Your task to perform on an android device: toggle show notifications on the lock screen Image 0: 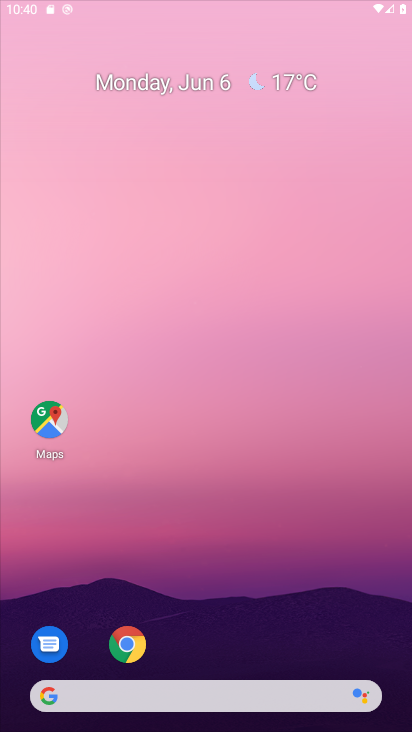
Step 0: click (129, 650)
Your task to perform on an android device: toggle show notifications on the lock screen Image 1: 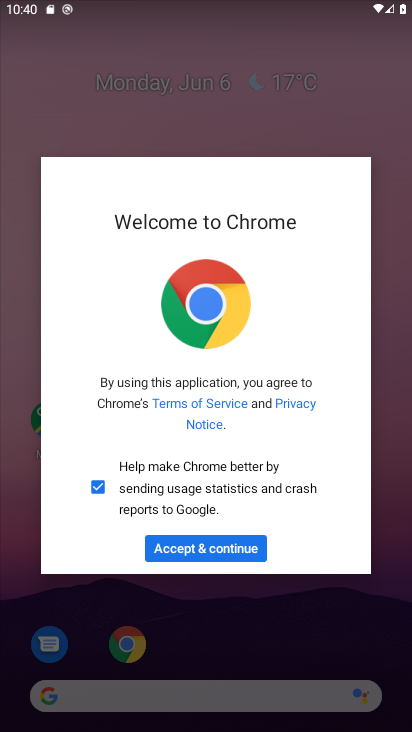
Step 1: click (221, 535)
Your task to perform on an android device: toggle show notifications on the lock screen Image 2: 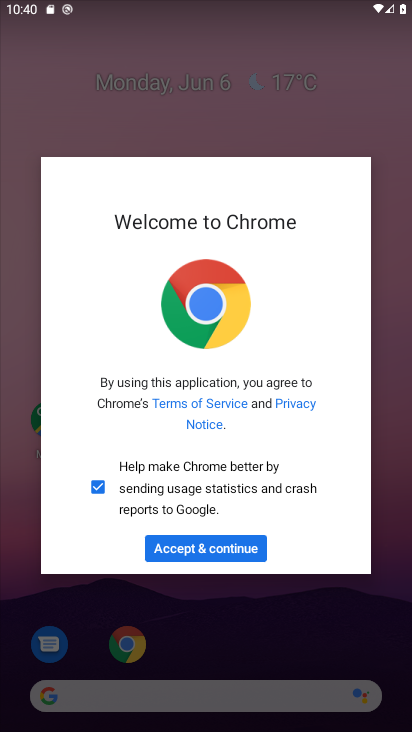
Step 2: press home button
Your task to perform on an android device: toggle show notifications on the lock screen Image 3: 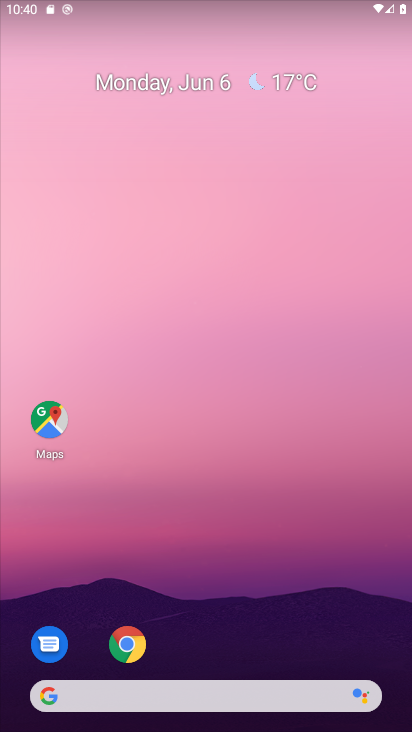
Step 3: drag from (246, 522) to (251, 81)
Your task to perform on an android device: toggle show notifications on the lock screen Image 4: 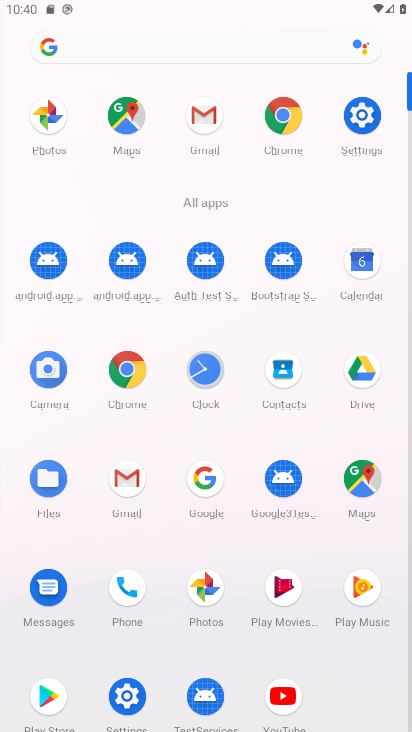
Step 4: click (359, 116)
Your task to perform on an android device: toggle show notifications on the lock screen Image 5: 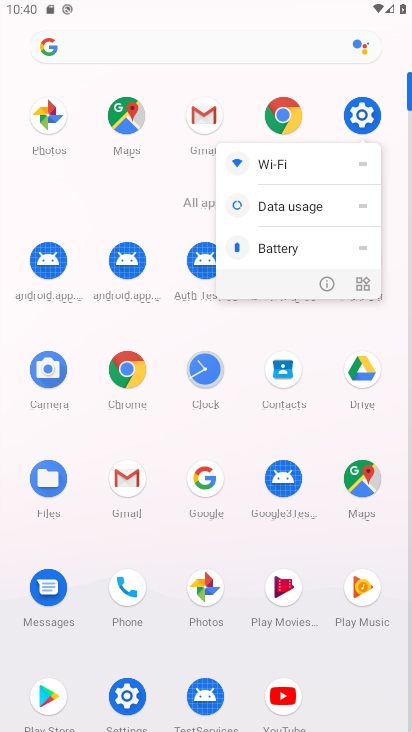
Step 5: click (361, 119)
Your task to perform on an android device: toggle show notifications on the lock screen Image 6: 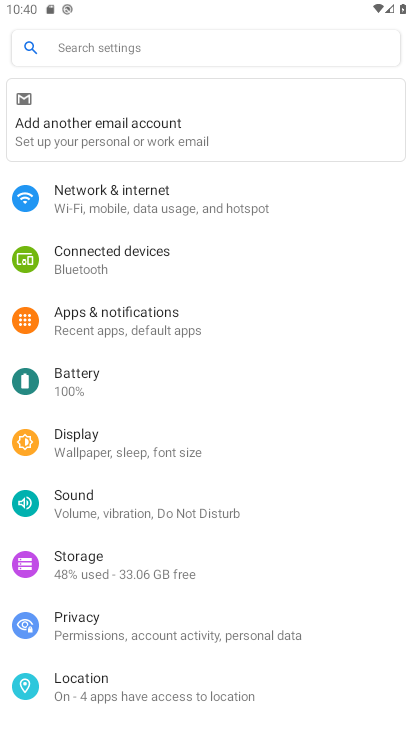
Step 6: click (66, 630)
Your task to perform on an android device: toggle show notifications on the lock screen Image 7: 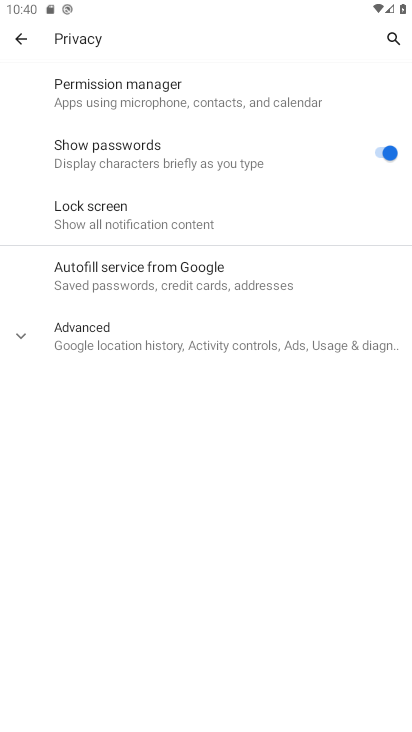
Step 7: click (82, 341)
Your task to perform on an android device: toggle show notifications on the lock screen Image 8: 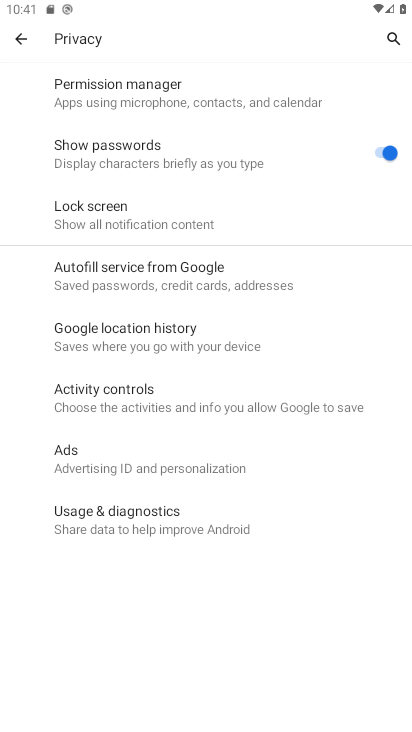
Step 8: click (98, 217)
Your task to perform on an android device: toggle show notifications on the lock screen Image 9: 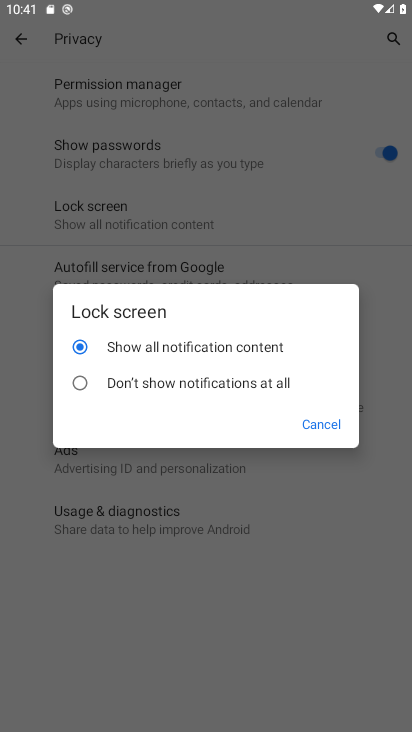
Step 9: click (177, 383)
Your task to perform on an android device: toggle show notifications on the lock screen Image 10: 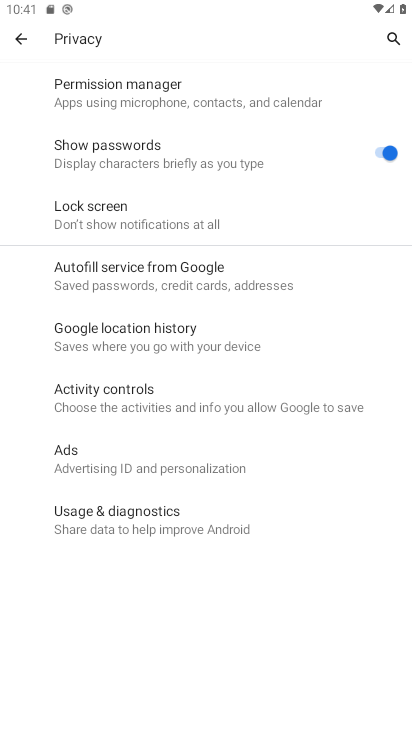
Step 10: task complete